Your task to perform on an android device: Go to Google maps Image 0: 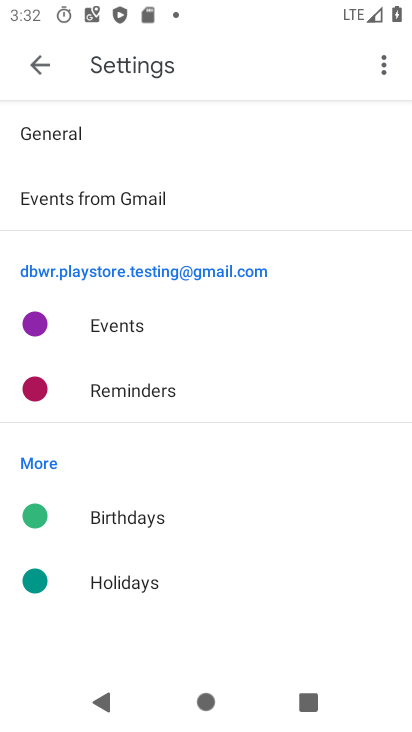
Step 0: drag from (327, 568) to (326, 93)
Your task to perform on an android device: Go to Google maps Image 1: 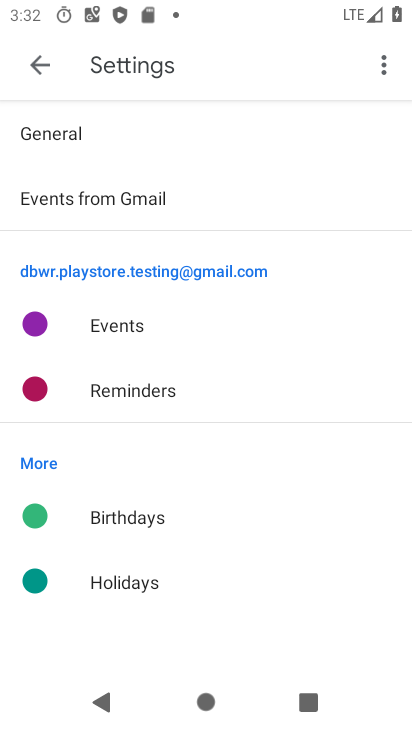
Step 1: press home button
Your task to perform on an android device: Go to Google maps Image 2: 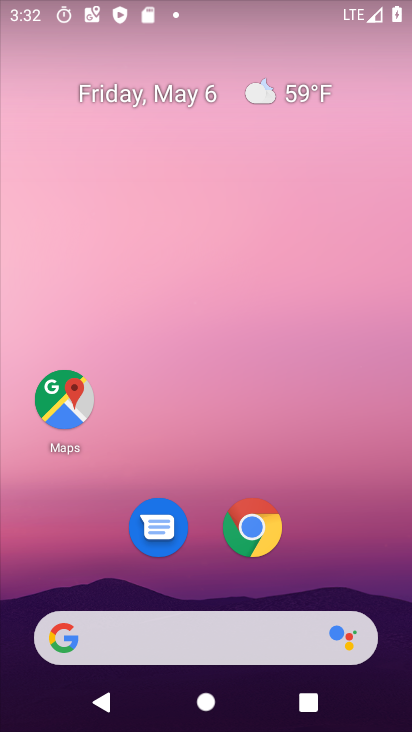
Step 2: click (64, 405)
Your task to perform on an android device: Go to Google maps Image 3: 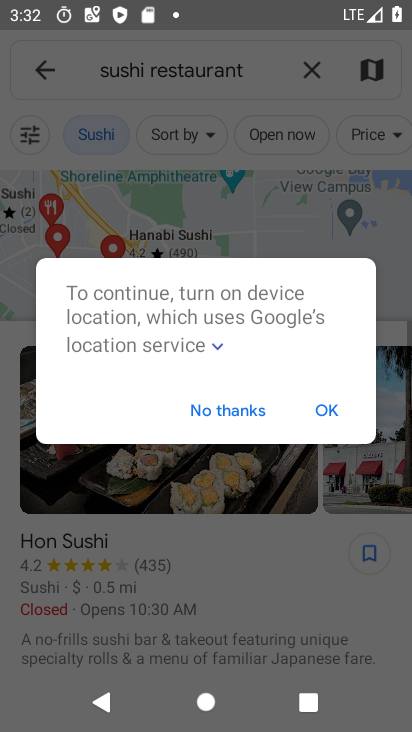
Step 3: task complete